Your task to perform on an android device: Go to accessibility settings Image 0: 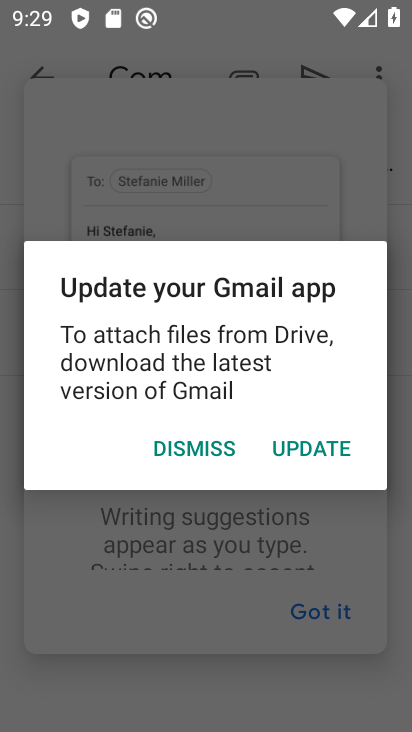
Step 0: press home button
Your task to perform on an android device: Go to accessibility settings Image 1: 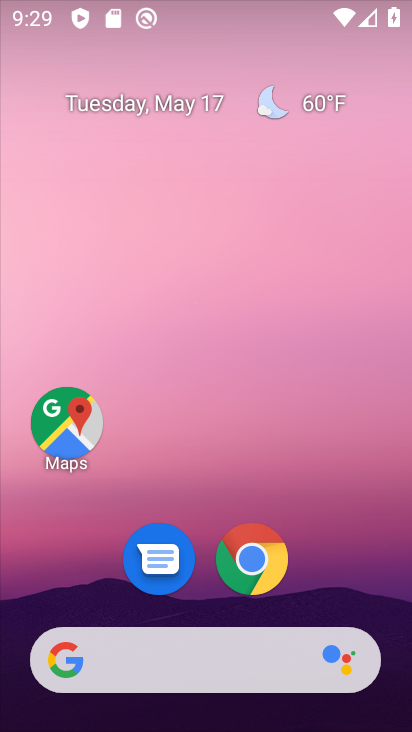
Step 1: drag from (328, 600) to (366, 174)
Your task to perform on an android device: Go to accessibility settings Image 2: 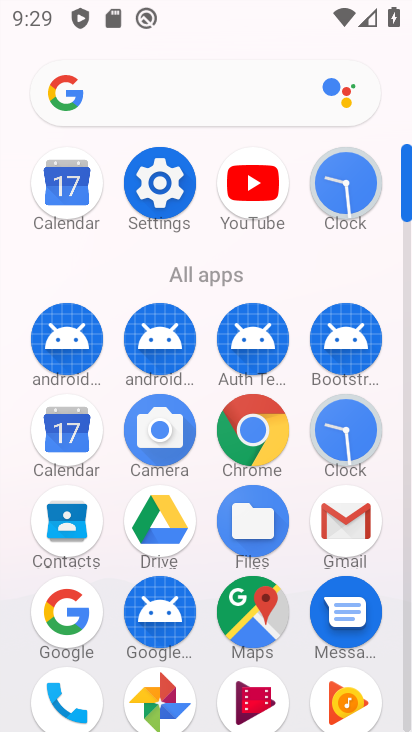
Step 2: click (171, 190)
Your task to perform on an android device: Go to accessibility settings Image 3: 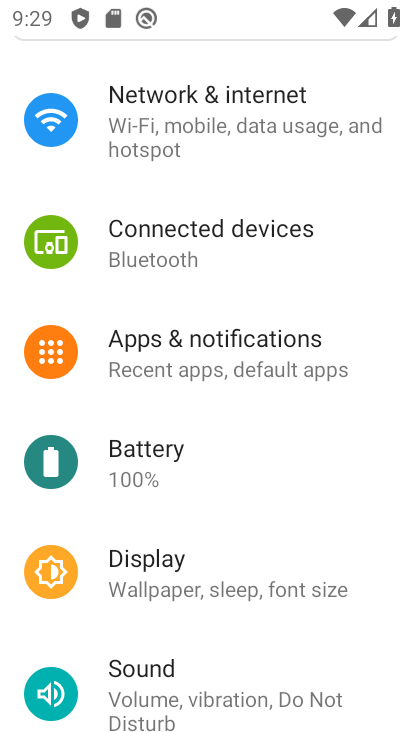
Step 3: drag from (220, 618) to (361, 156)
Your task to perform on an android device: Go to accessibility settings Image 4: 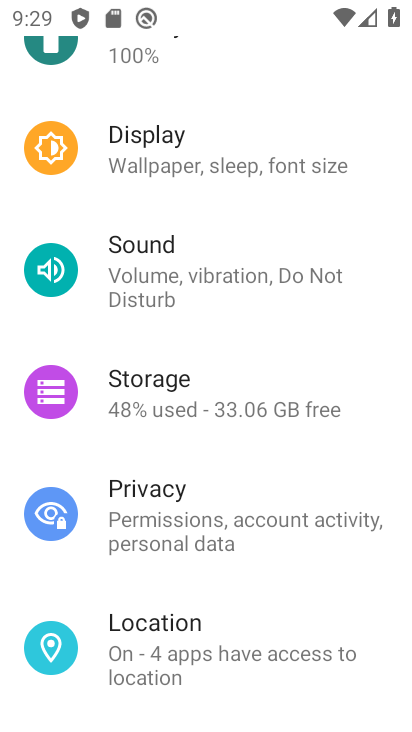
Step 4: drag from (177, 623) to (355, 224)
Your task to perform on an android device: Go to accessibility settings Image 5: 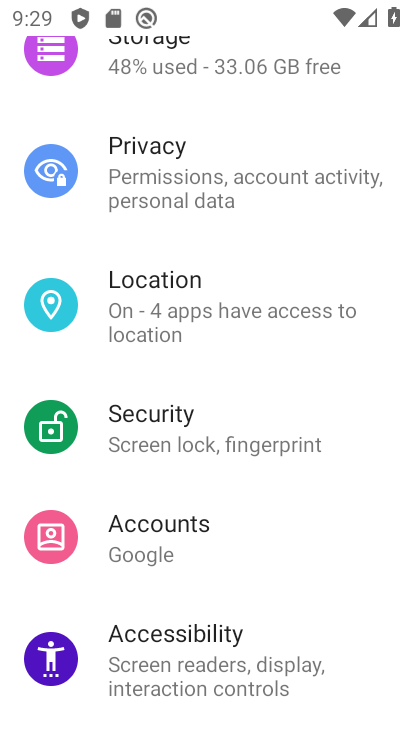
Step 5: click (182, 674)
Your task to perform on an android device: Go to accessibility settings Image 6: 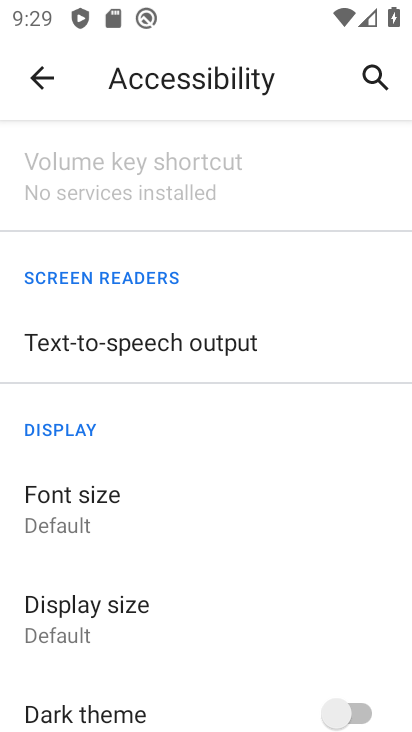
Step 6: task complete